Your task to perform on an android device: open the mobile data screen to see how much data has been used Image 0: 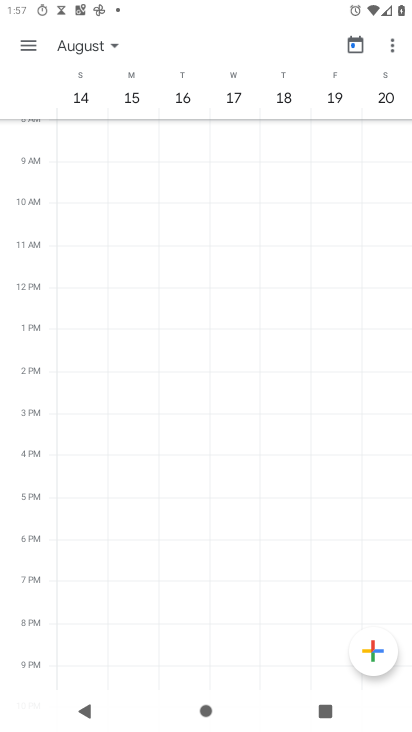
Step 0: press home button
Your task to perform on an android device: open the mobile data screen to see how much data has been used Image 1: 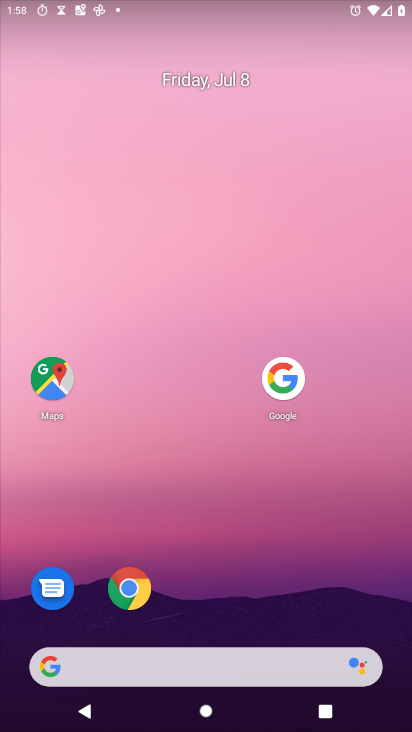
Step 1: drag from (146, 657) to (259, 179)
Your task to perform on an android device: open the mobile data screen to see how much data has been used Image 2: 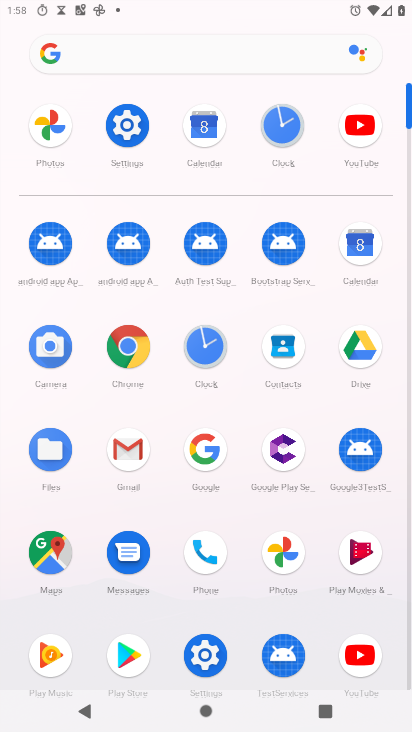
Step 2: click (128, 129)
Your task to perform on an android device: open the mobile data screen to see how much data has been used Image 3: 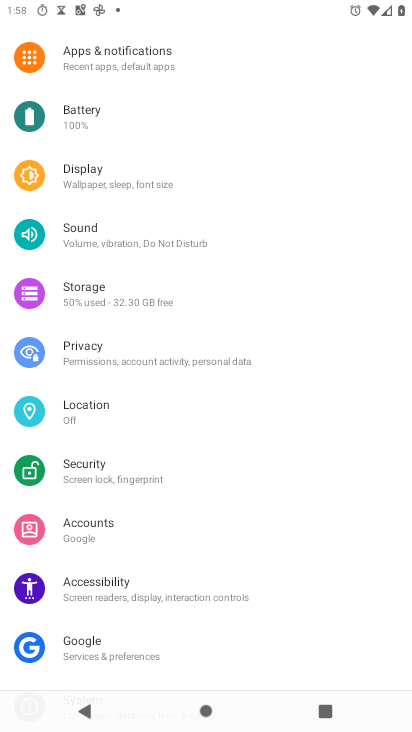
Step 3: drag from (199, 79) to (196, 629)
Your task to perform on an android device: open the mobile data screen to see how much data has been used Image 4: 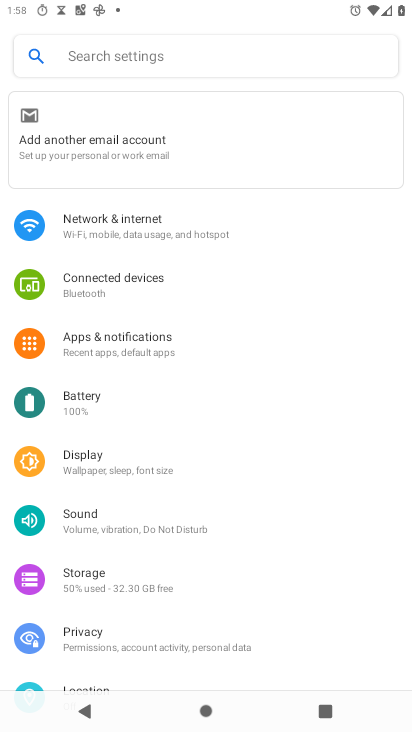
Step 4: click (151, 229)
Your task to perform on an android device: open the mobile data screen to see how much data has been used Image 5: 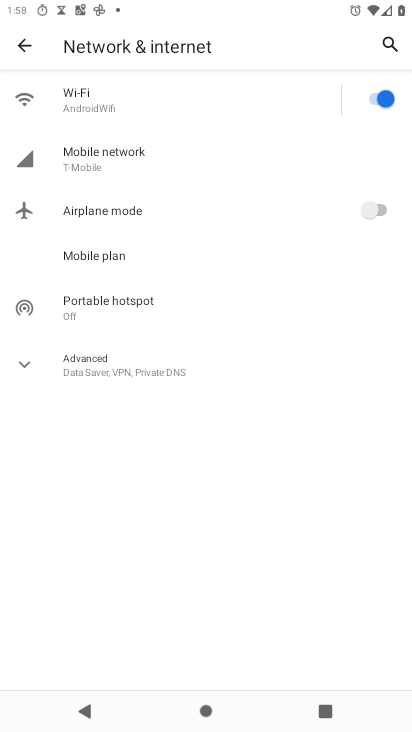
Step 5: click (128, 159)
Your task to perform on an android device: open the mobile data screen to see how much data has been used Image 6: 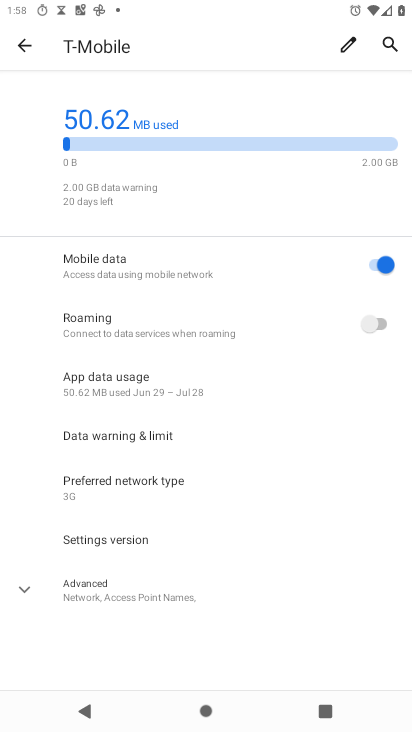
Step 6: task complete